Your task to perform on an android device: toggle translation in the chrome app Image 0: 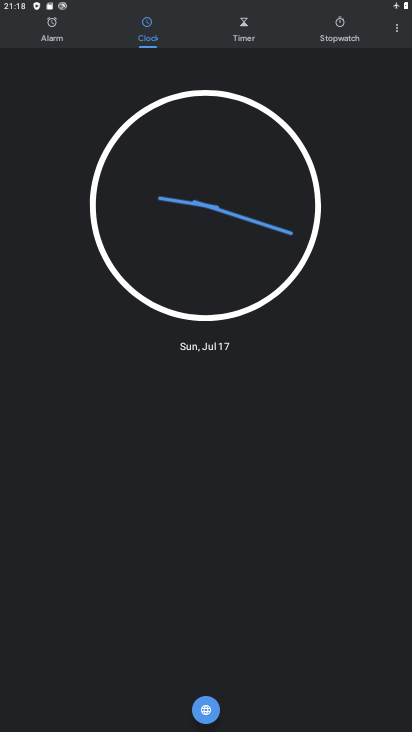
Step 0: press home button
Your task to perform on an android device: toggle translation in the chrome app Image 1: 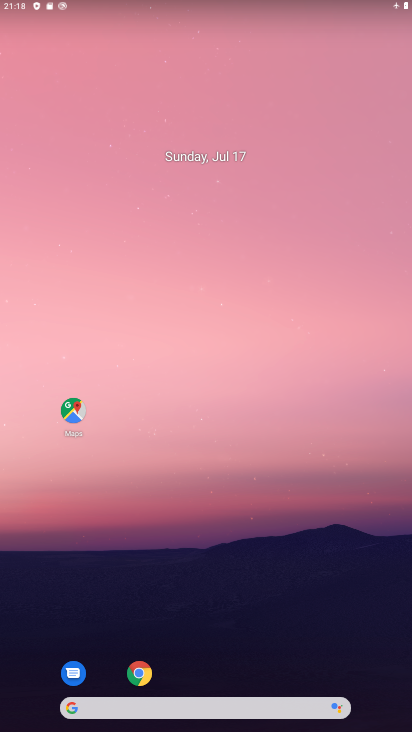
Step 1: click (138, 673)
Your task to perform on an android device: toggle translation in the chrome app Image 2: 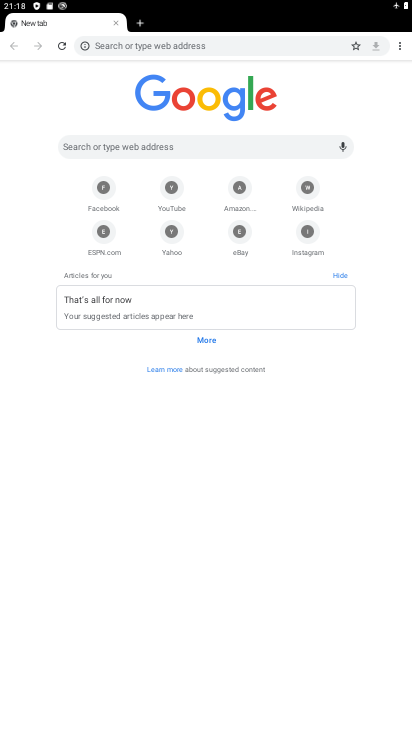
Step 2: click (400, 49)
Your task to perform on an android device: toggle translation in the chrome app Image 3: 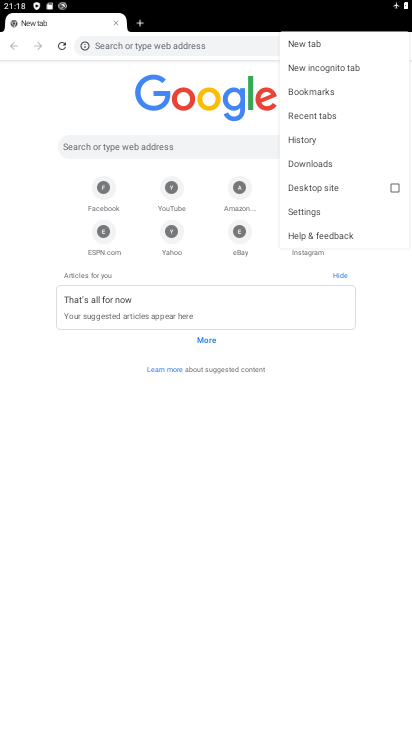
Step 3: click (298, 206)
Your task to perform on an android device: toggle translation in the chrome app Image 4: 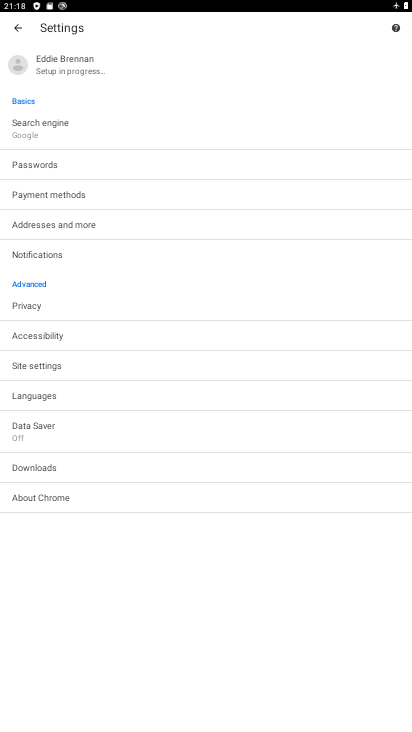
Step 4: click (23, 394)
Your task to perform on an android device: toggle translation in the chrome app Image 5: 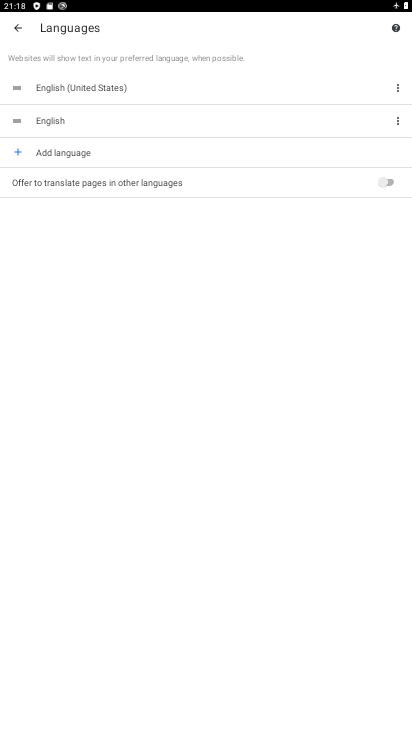
Step 5: click (392, 181)
Your task to perform on an android device: toggle translation in the chrome app Image 6: 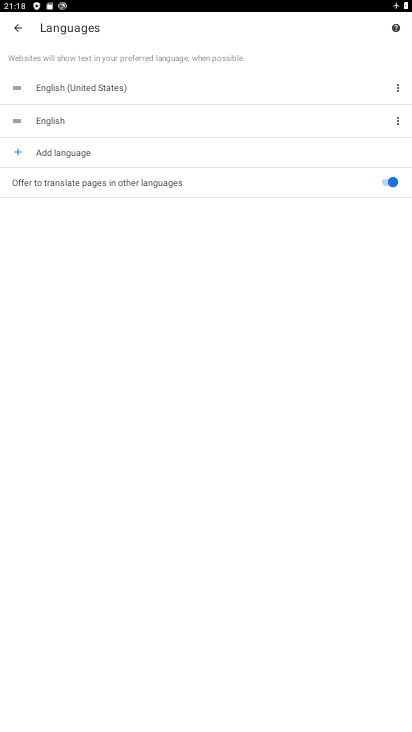
Step 6: task complete